Your task to perform on an android device: Go to CNN.com Image 0: 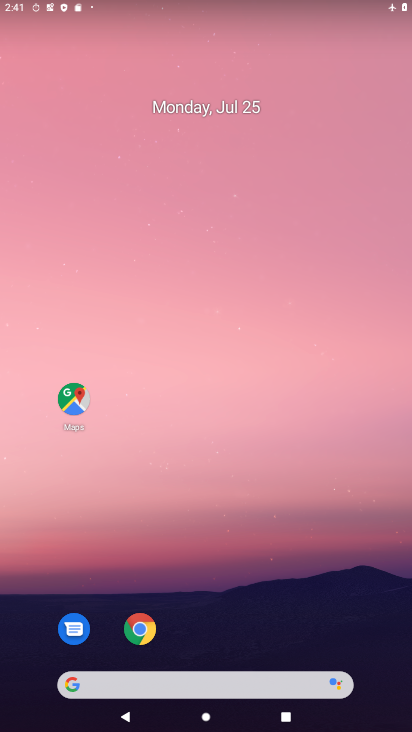
Step 0: click (110, 691)
Your task to perform on an android device: Go to CNN.com Image 1: 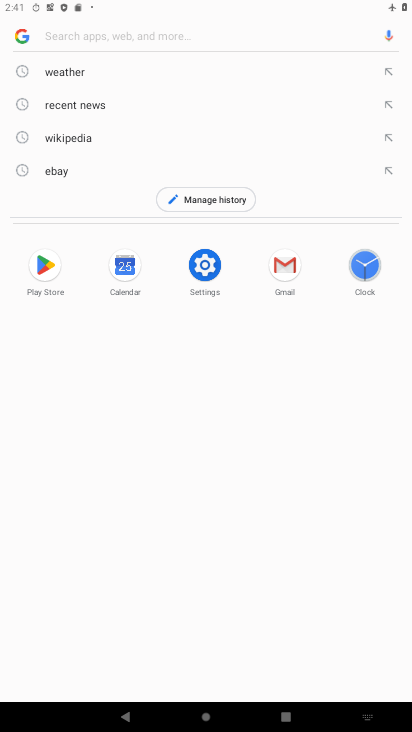
Step 1: click (94, 31)
Your task to perform on an android device: Go to CNN.com Image 2: 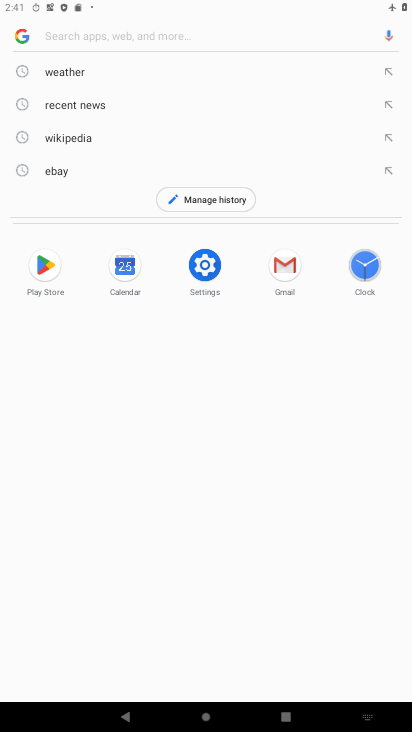
Step 2: type "CNN.com"
Your task to perform on an android device: Go to CNN.com Image 3: 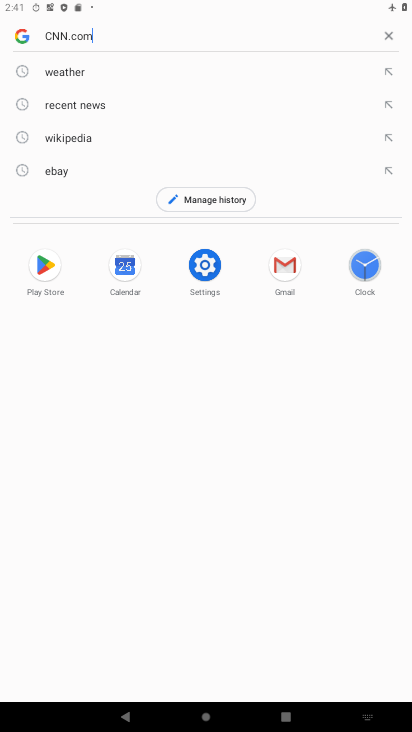
Step 3: type ""
Your task to perform on an android device: Go to CNN.com Image 4: 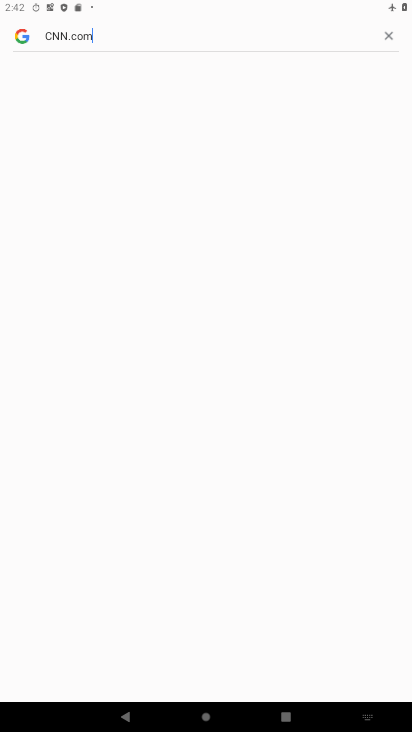
Step 4: task complete